Your task to perform on an android device: uninstall "Yahoo Mail" Image 0: 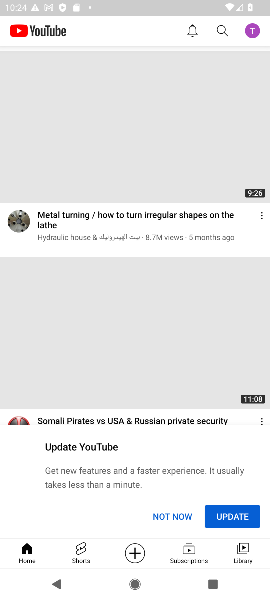
Step 0: press home button
Your task to perform on an android device: uninstall "Yahoo Mail" Image 1: 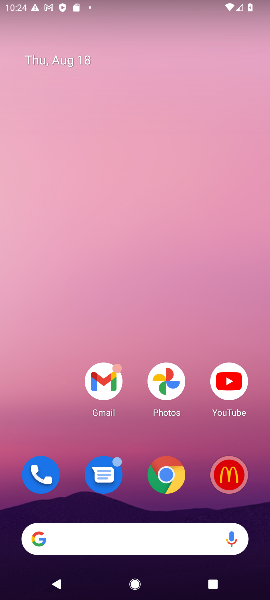
Step 1: drag from (145, 506) to (103, 25)
Your task to perform on an android device: uninstall "Yahoo Mail" Image 2: 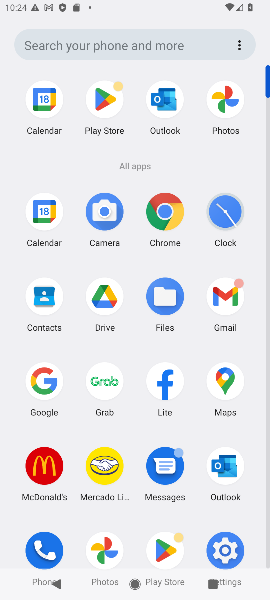
Step 2: click (160, 553)
Your task to perform on an android device: uninstall "Yahoo Mail" Image 3: 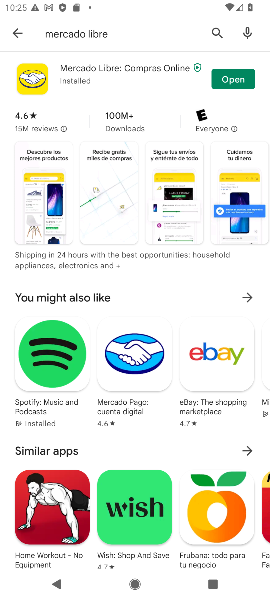
Step 3: click (15, 32)
Your task to perform on an android device: uninstall "Yahoo Mail" Image 4: 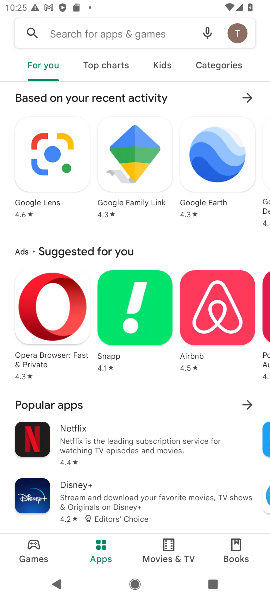
Step 4: click (95, 32)
Your task to perform on an android device: uninstall "Yahoo Mail" Image 5: 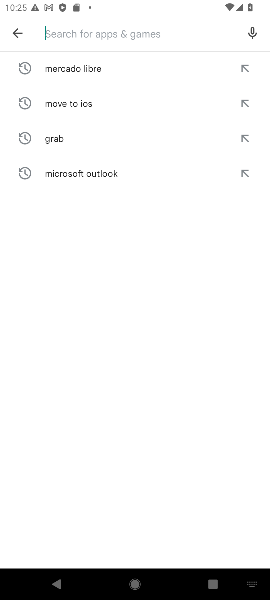
Step 5: type "Yahoo Mai"
Your task to perform on an android device: uninstall "Yahoo Mail" Image 6: 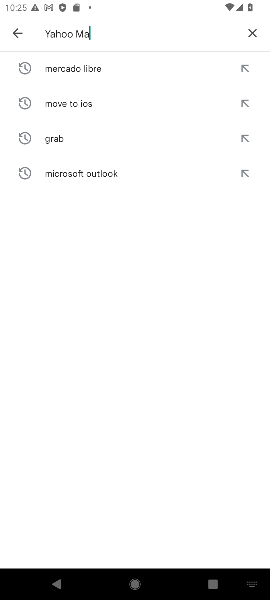
Step 6: type ""
Your task to perform on an android device: uninstall "Yahoo Mail" Image 7: 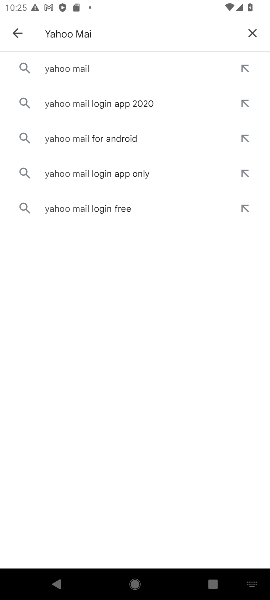
Step 7: click (78, 76)
Your task to perform on an android device: uninstall "Yahoo Mail" Image 8: 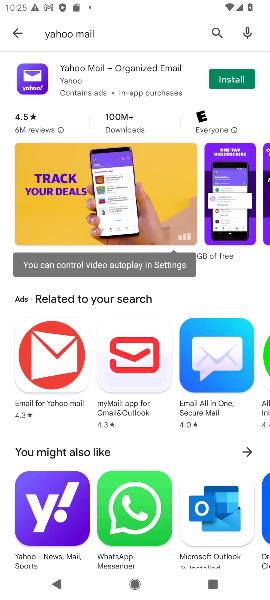
Step 8: task complete